Your task to perform on an android device: Open eBay Image 0: 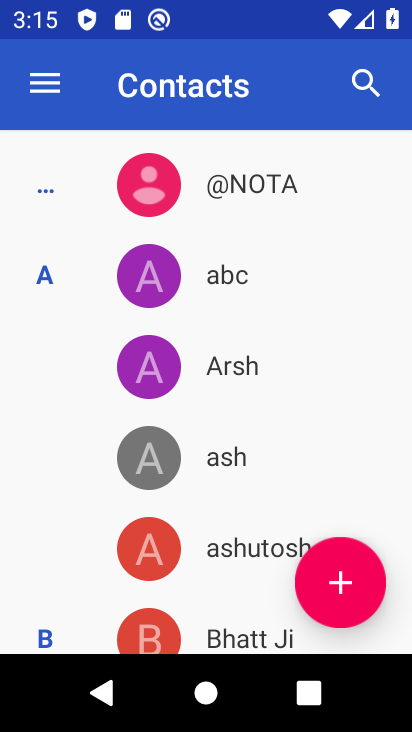
Step 0: press home button
Your task to perform on an android device: Open eBay Image 1: 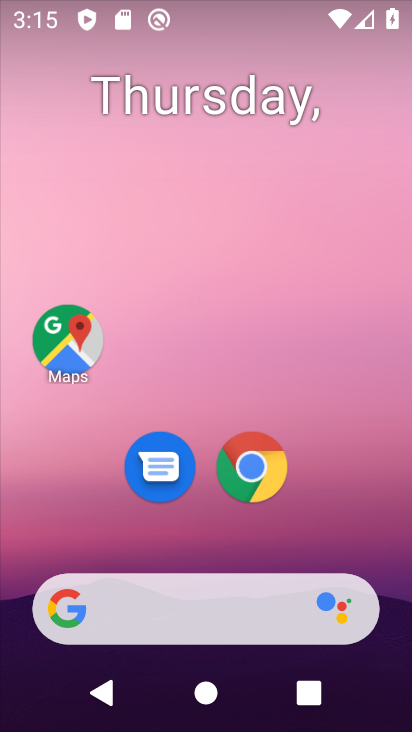
Step 1: drag from (200, 649) to (260, 68)
Your task to perform on an android device: Open eBay Image 2: 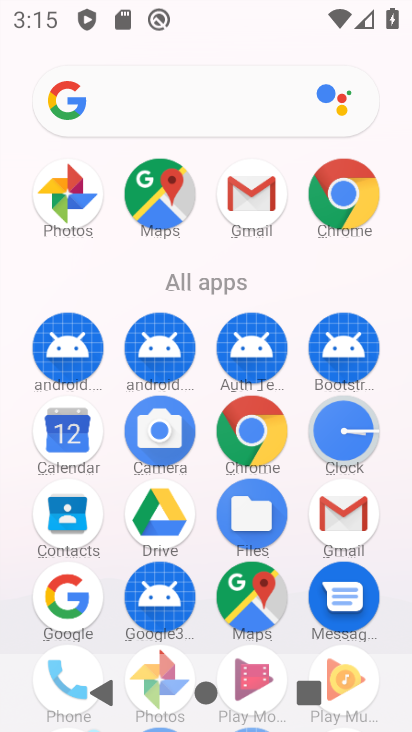
Step 2: click (251, 433)
Your task to perform on an android device: Open eBay Image 3: 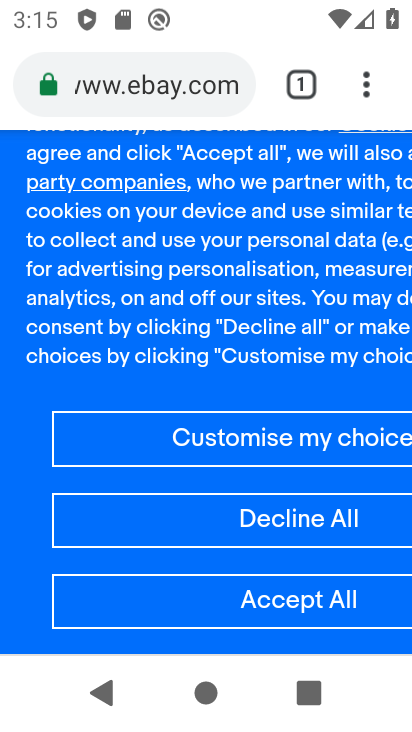
Step 3: task complete